Your task to perform on an android device: Open location settings Image 0: 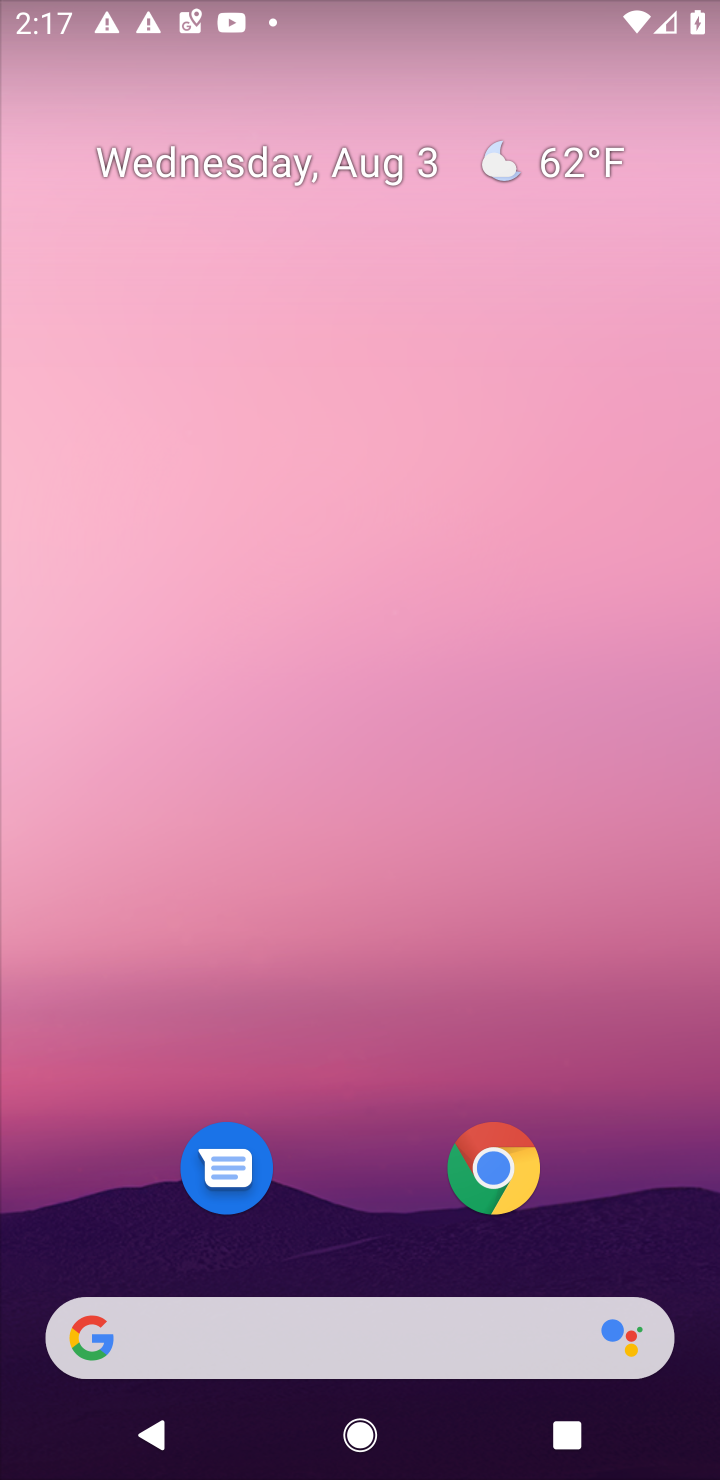
Step 0: drag from (635, 1227) to (614, 280)
Your task to perform on an android device: Open location settings Image 1: 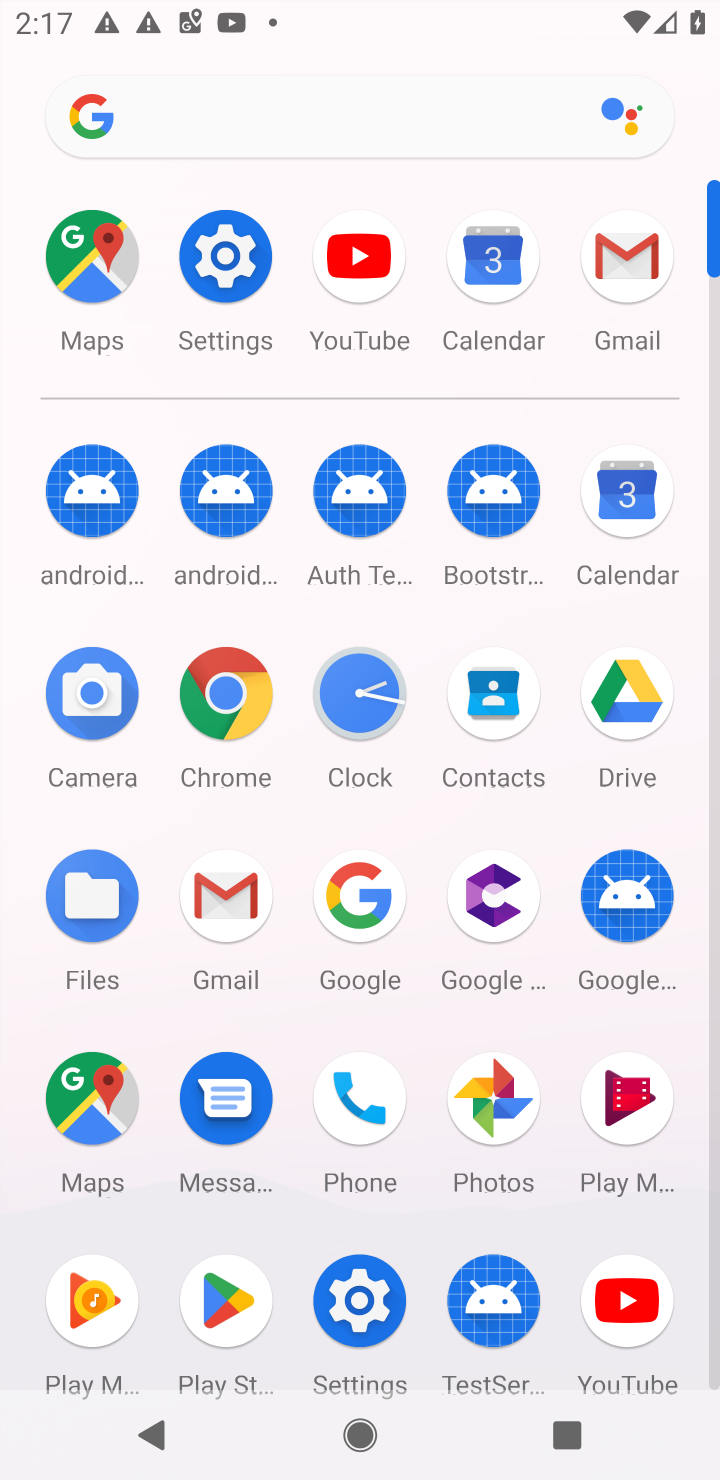
Step 1: click (361, 1300)
Your task to perform on an android device: Open location settings Image 2: 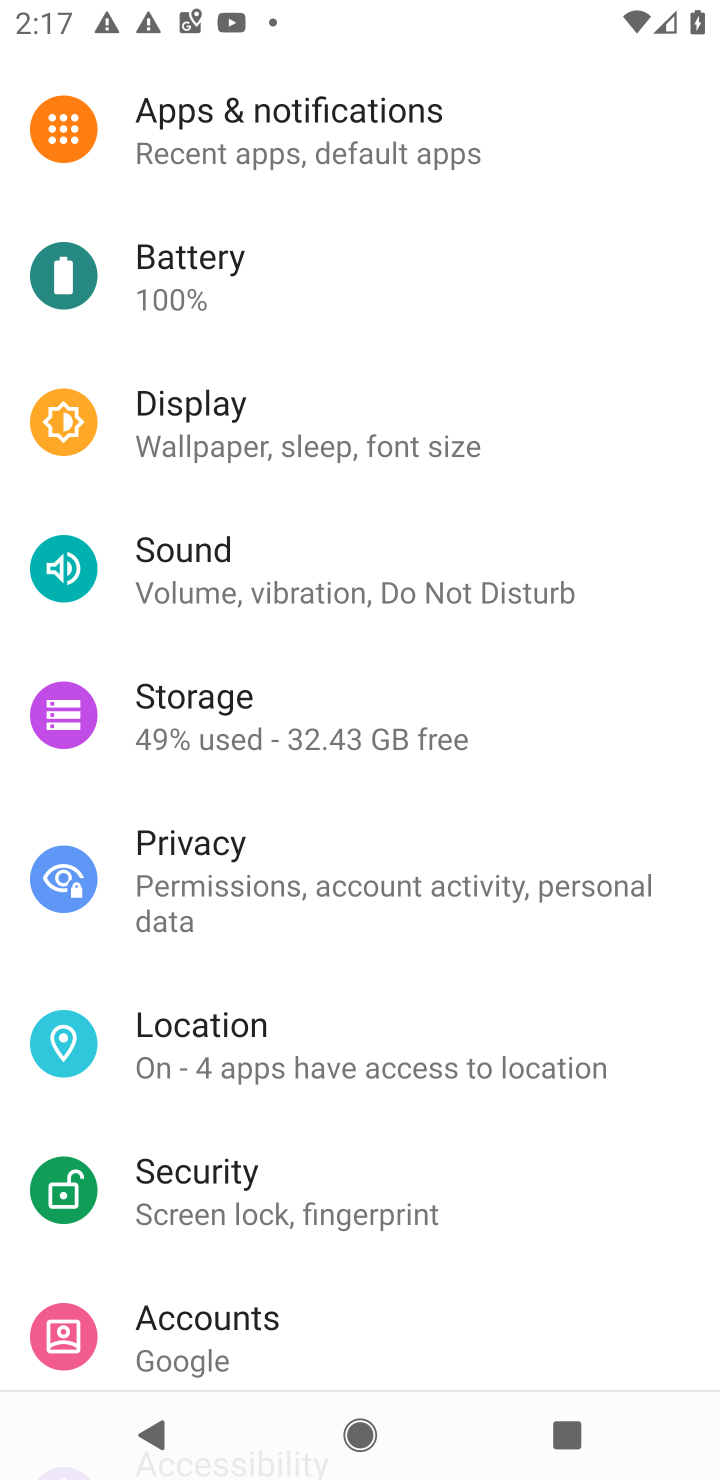
Step 2: click (237, 1041)
Your task to perform on an android device: Open location settings Image 3: 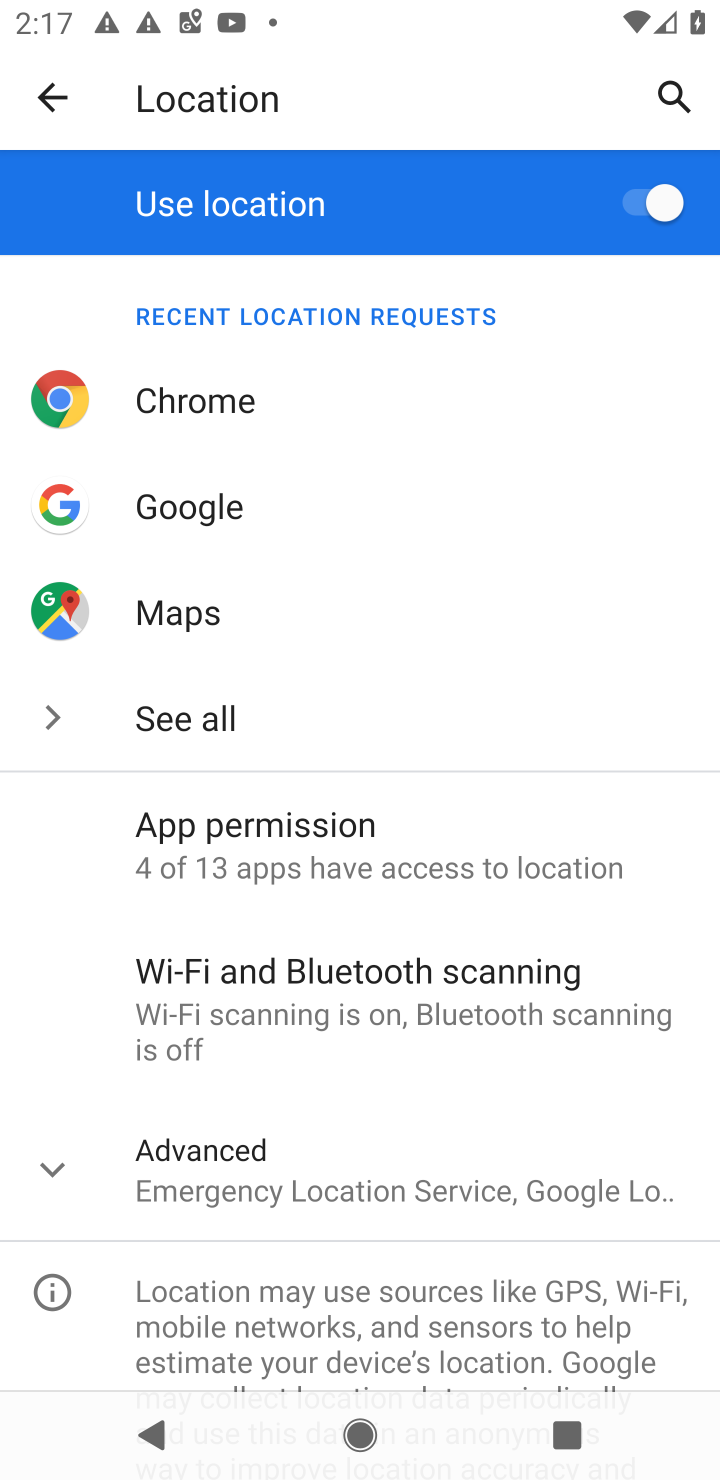
Step 3: click (51, 1169)
Your task to perform on an android device: Open location settings Image 4: 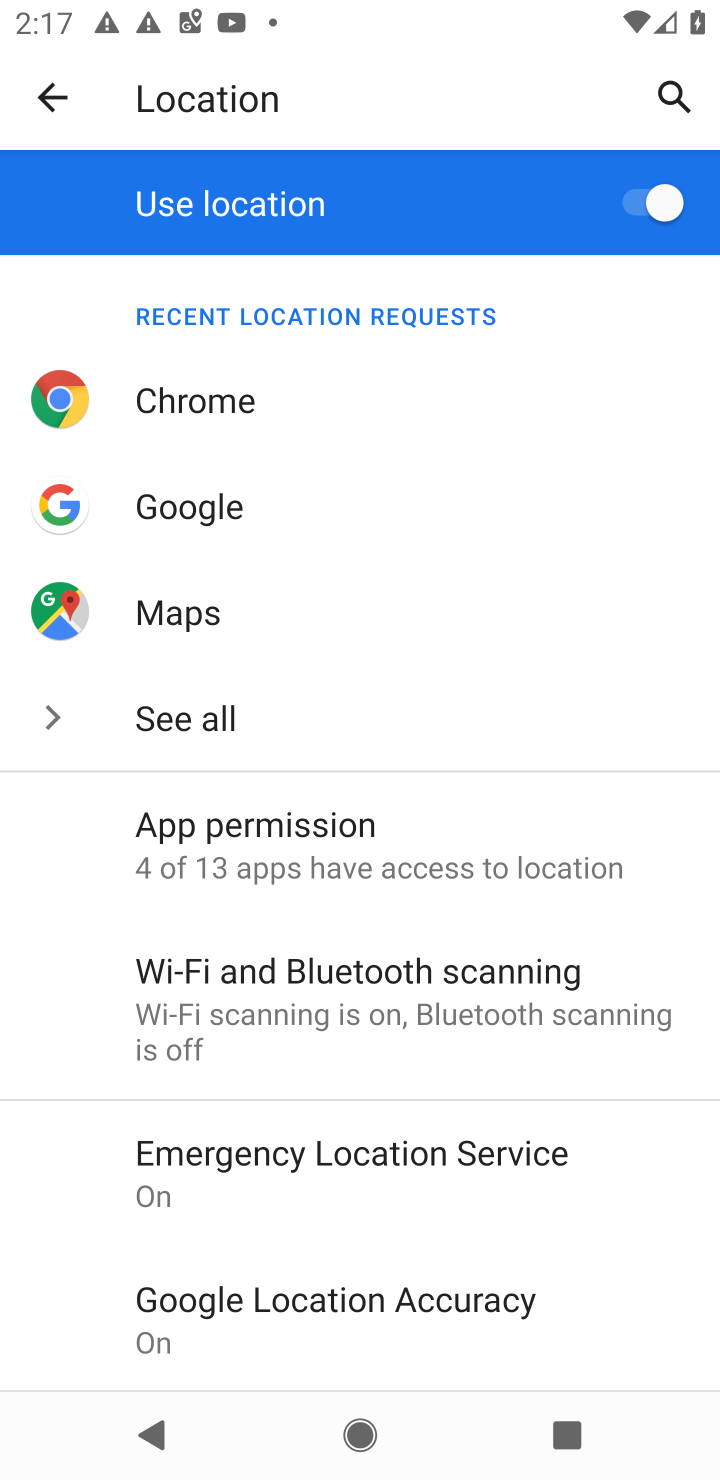
Step 4: task complete